Your task to perform on an android device: uninstall "Spotify: Music and Podcasts" Image 0: 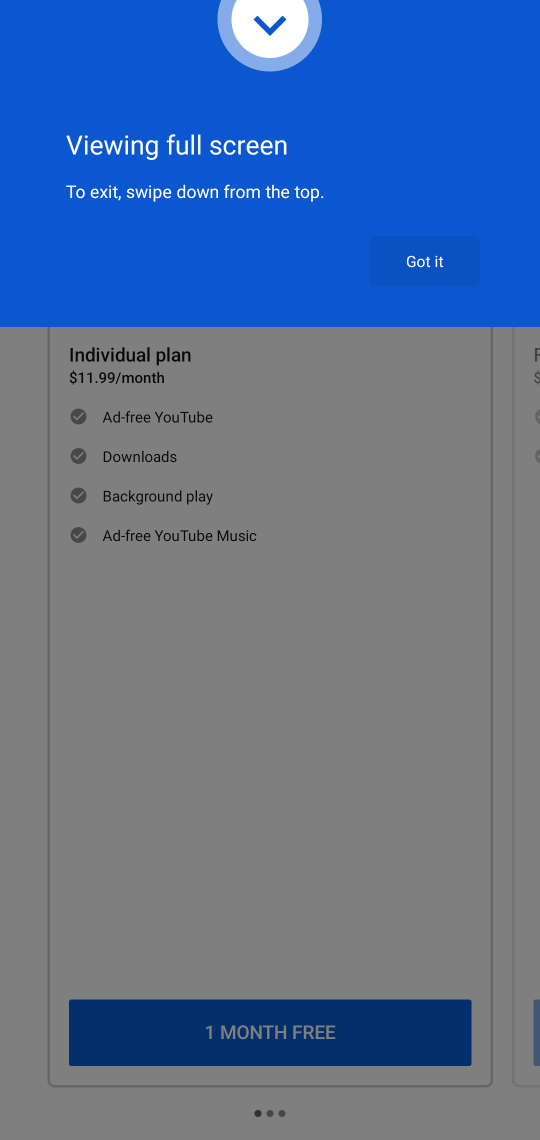
Step 0: press home button
Your task to perform on an android device: uninstall "Spotify: Music and Podcasts" Image 1: 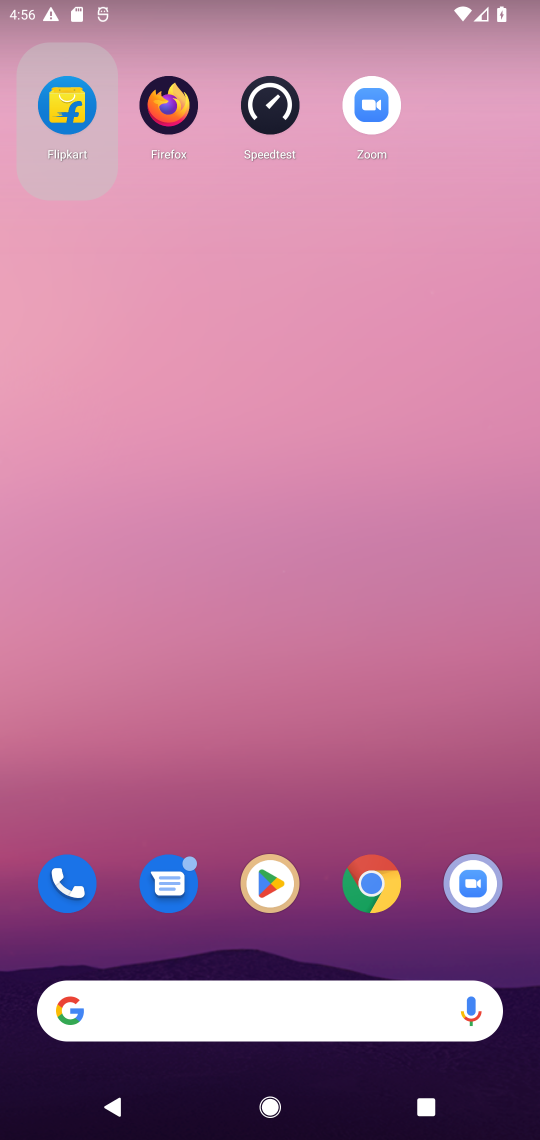
Step 1: drag from (216, 852) to (306, 132)
Your task to perform on an android device: uninstall "Spotify: Music and Podcasts" Image 2: 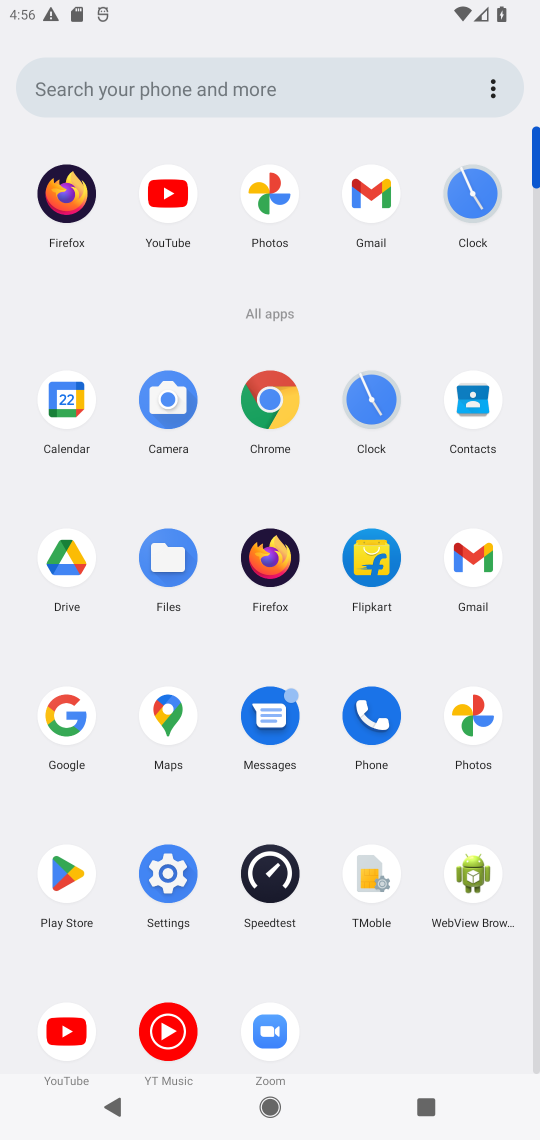
Step 2: click (55, 889)
Your task to perform on an android device: uninstall "Spotify: Music and Podcasts" Image 3: 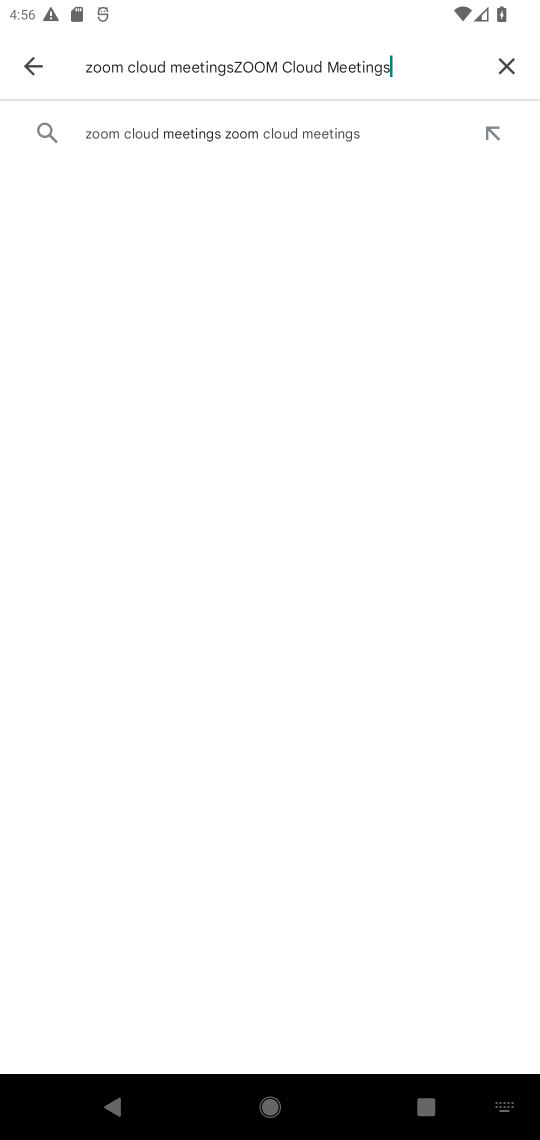
Step 3: click (507, 60)
Your task to perform on an android device: uninstall "Spotify: Music and Podcasts" Image 4: 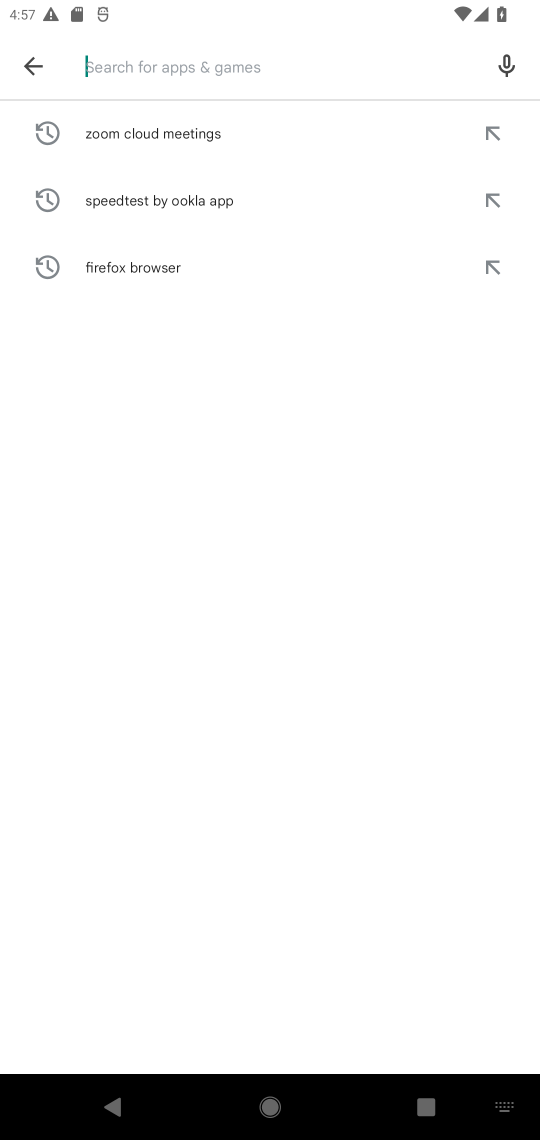
Step 4: type "Spotify: Music and Podcasts"
Your task to perform on an android device: uninstall "Spotify: Music and Podcasts" Image 5: 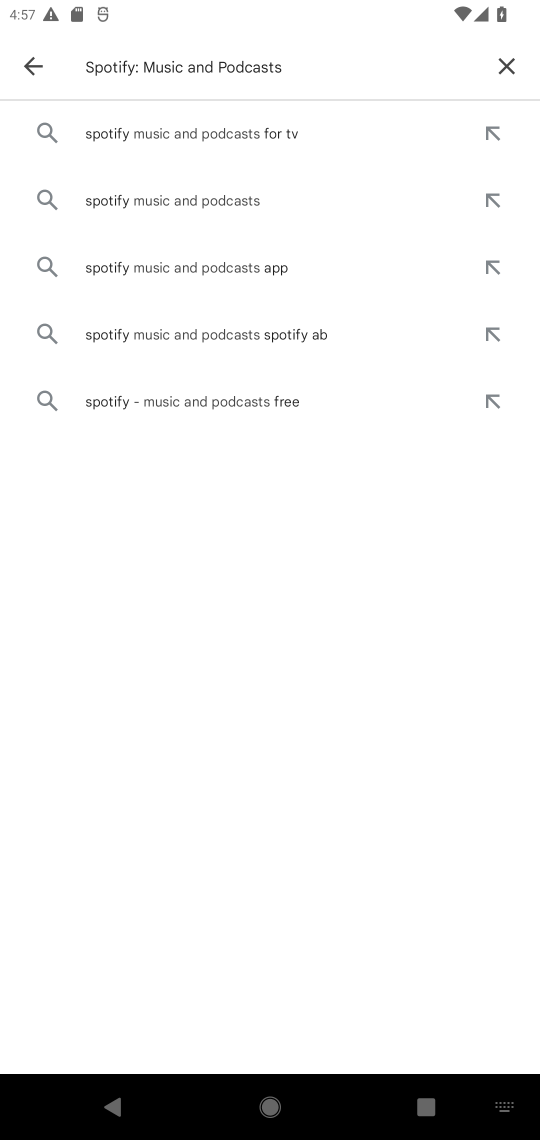
Step 5: click (209, 154)
Your task to perform on an android device: uninstall "Spotify: Music and Podcasts" Image 6: 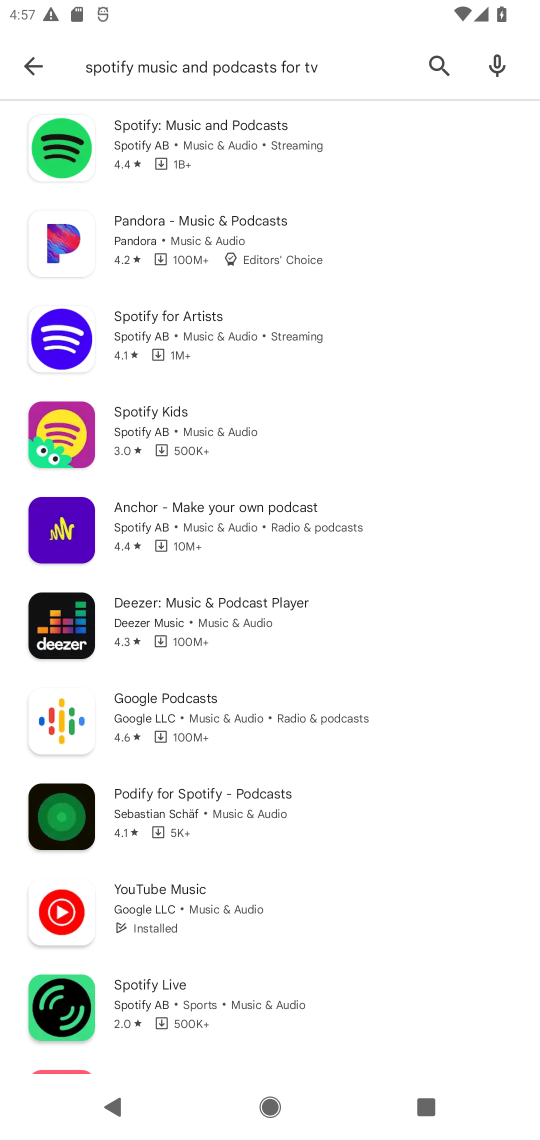
Step 6: click (195, 138)
Your task to perform on an android device: uninstall "Spotify: Music and Podcasts" Image 7: 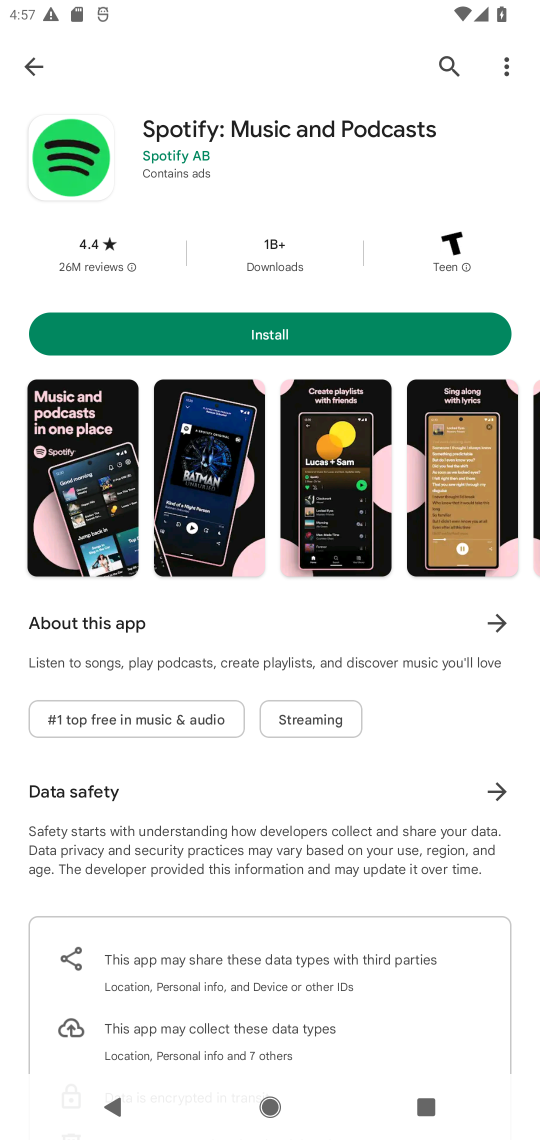
Step 7: click (231, 321)
Your task to perform on an android device: uninstall "Spotify: Music and Podcasts" Image 8: 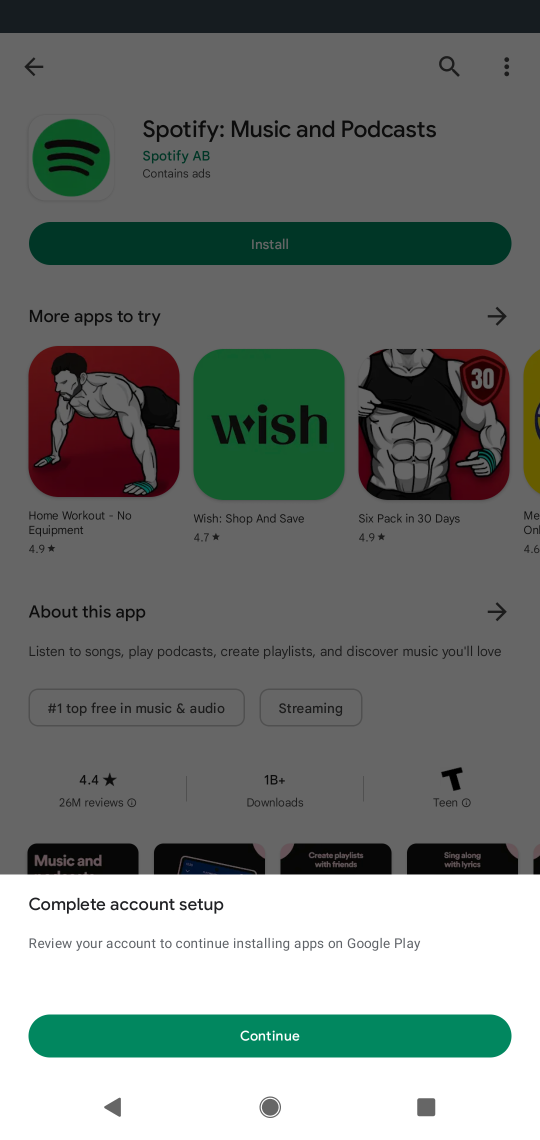
Step 8: task complete